Your task to perform on an android device: turn on data saver in the chrome app Image 0: 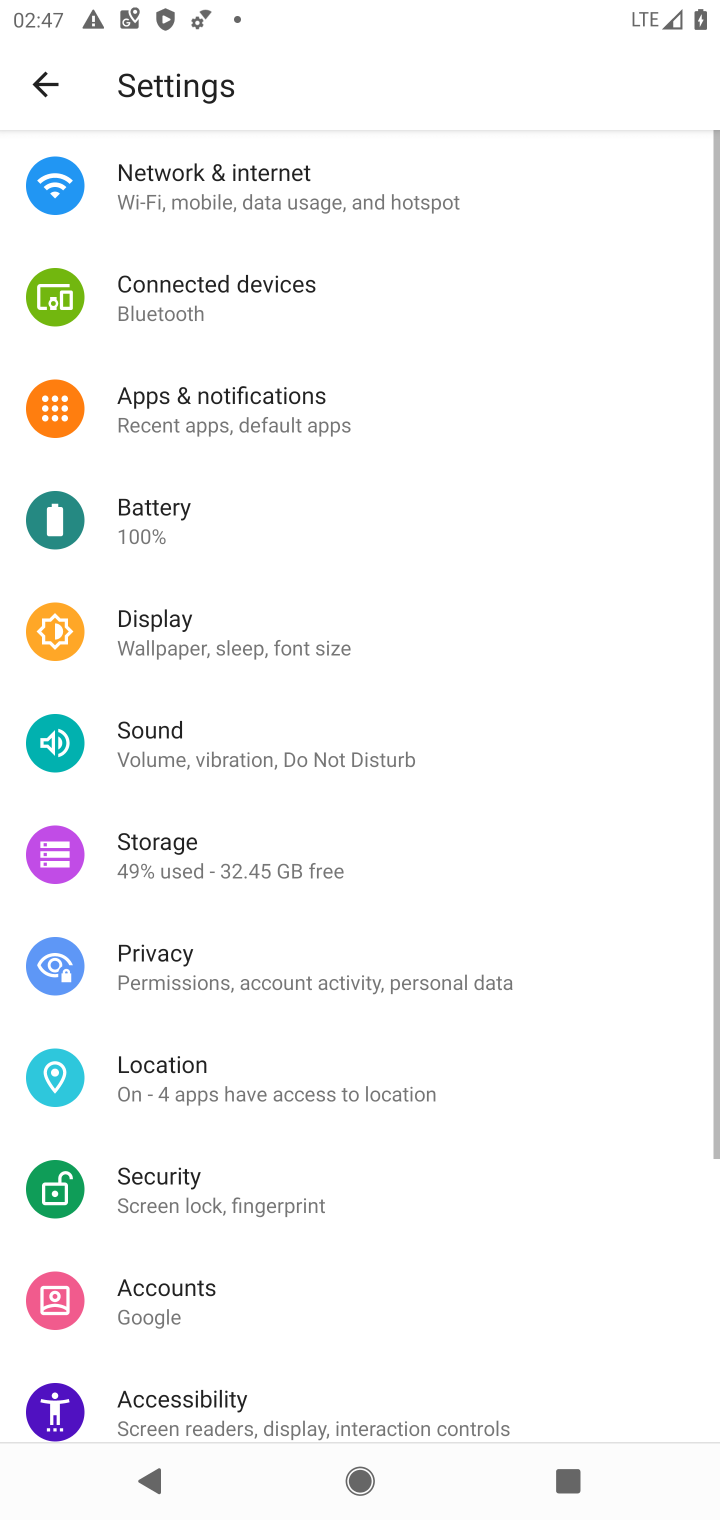
Step 0: press home button
Your task to perform on an android device: turn on data saver in the chrome app Image 1: 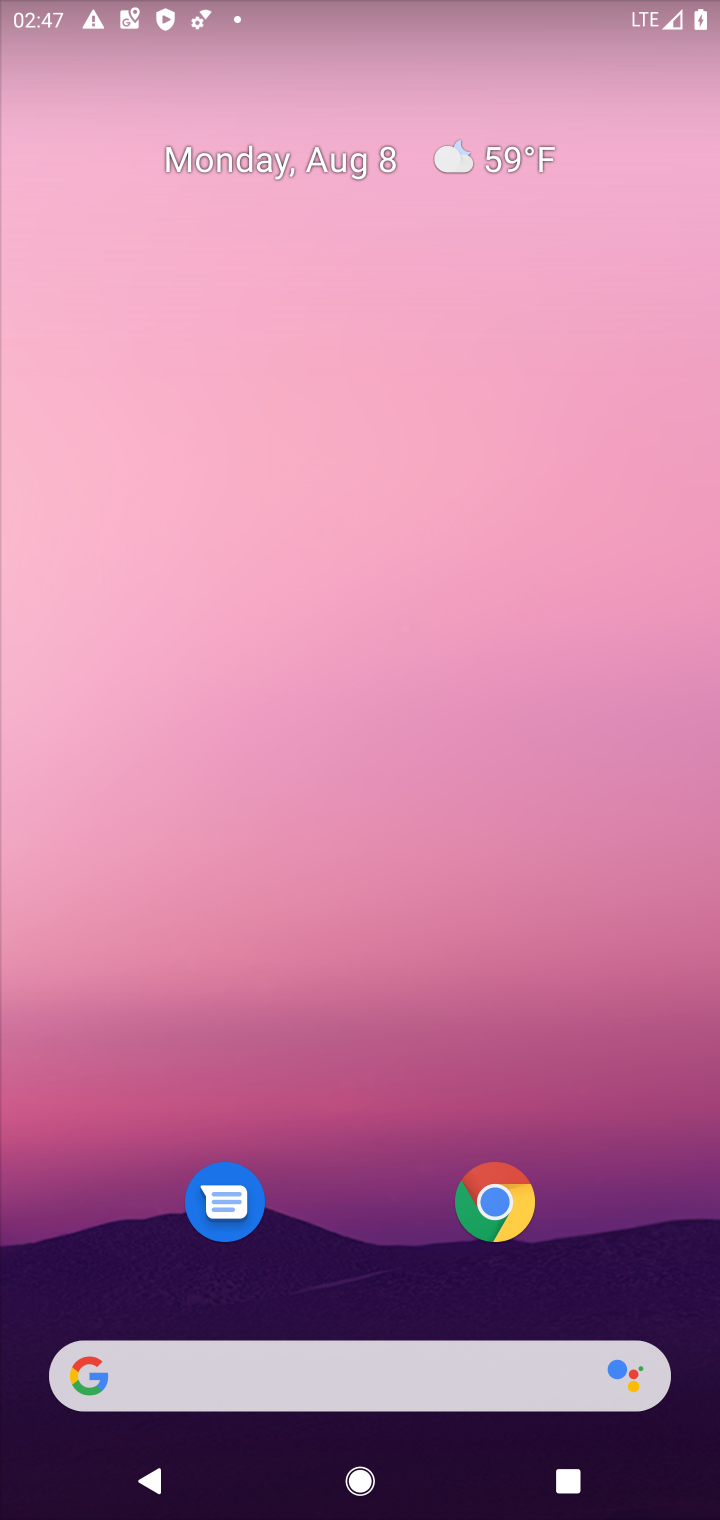
Step 1: click (493, 1213)
Your task to perform on an android device: turn on data saver in the chrome app Image 2: 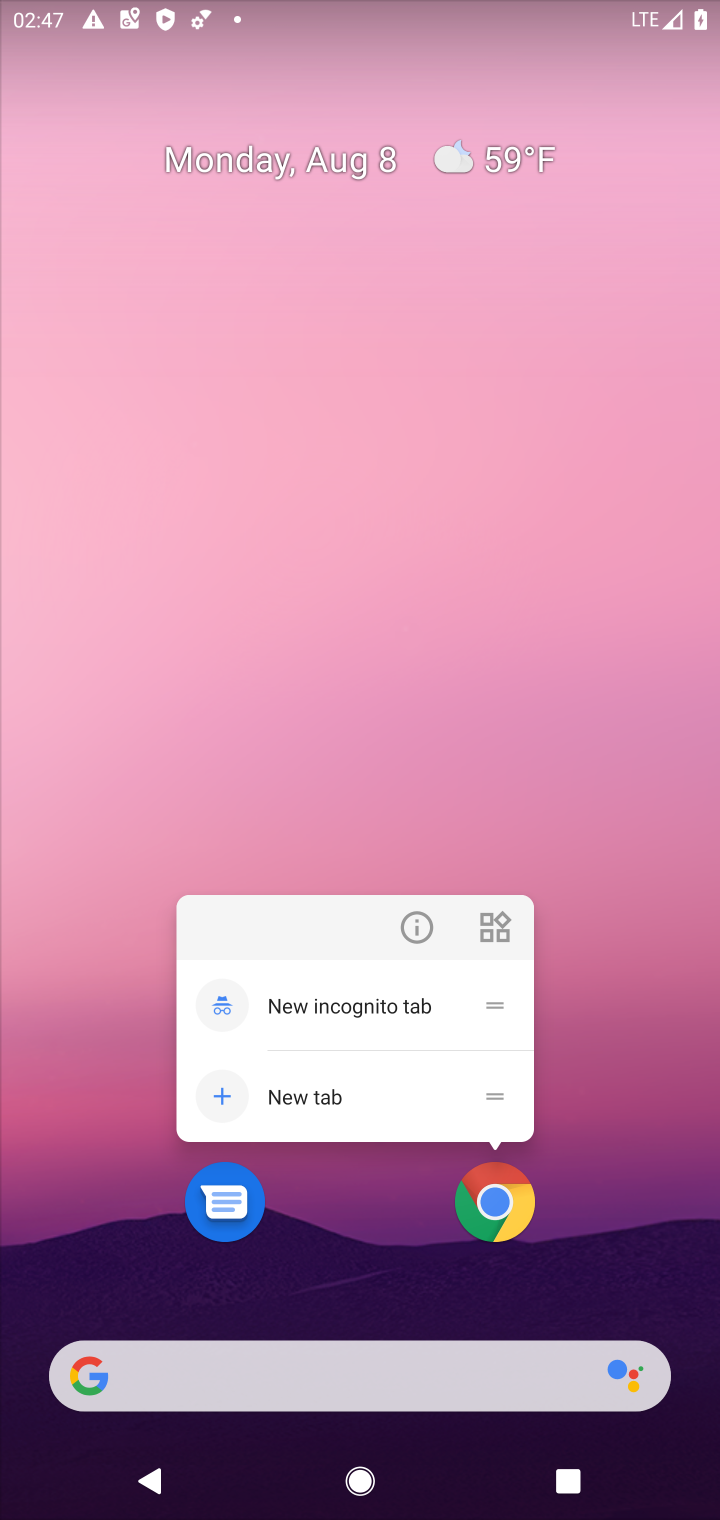
Step 2: click (493, 1194)
Your task to perform on an android device: turn on data saver in the chrome app Image 3: 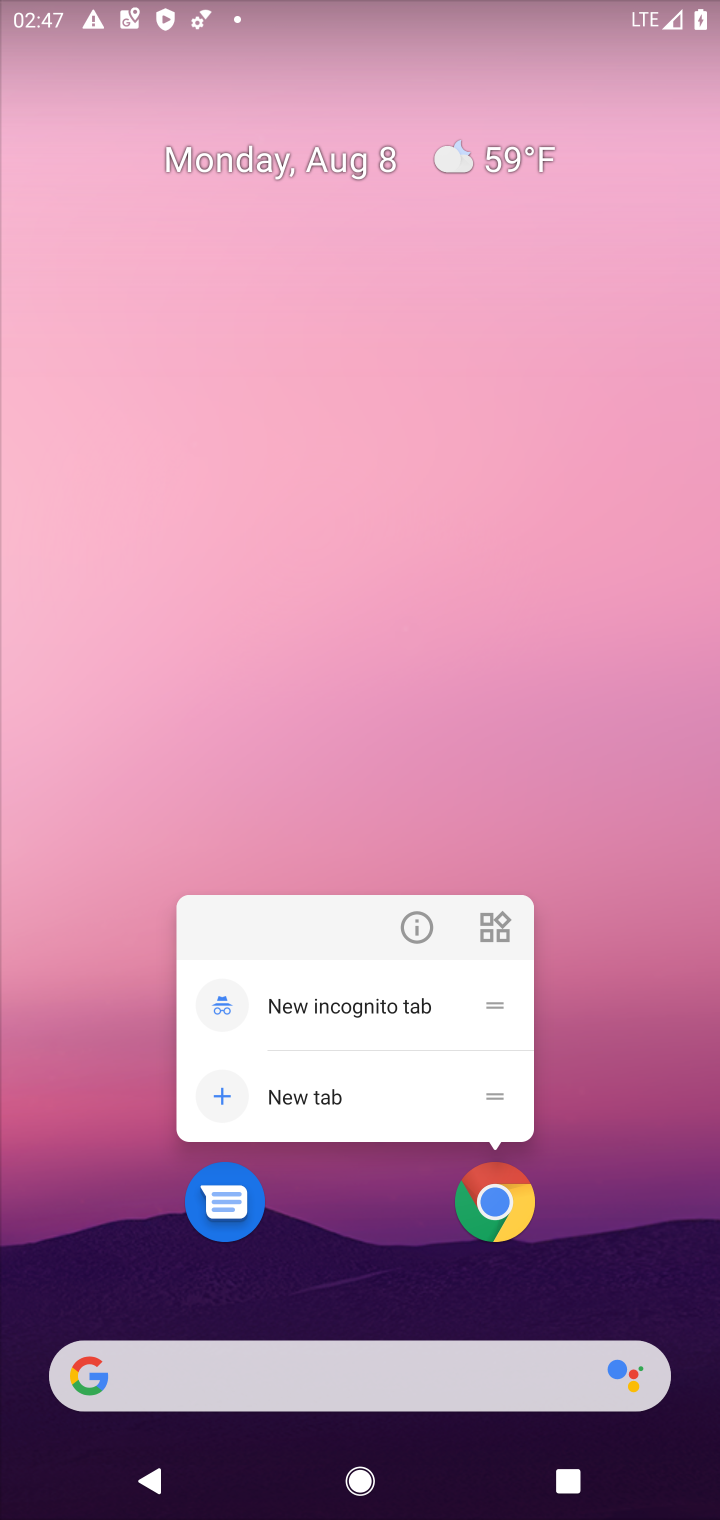
Step 3: click (494, 1210)
Your task to perform on an android device: turn on data saver in the chrome app Image 4: 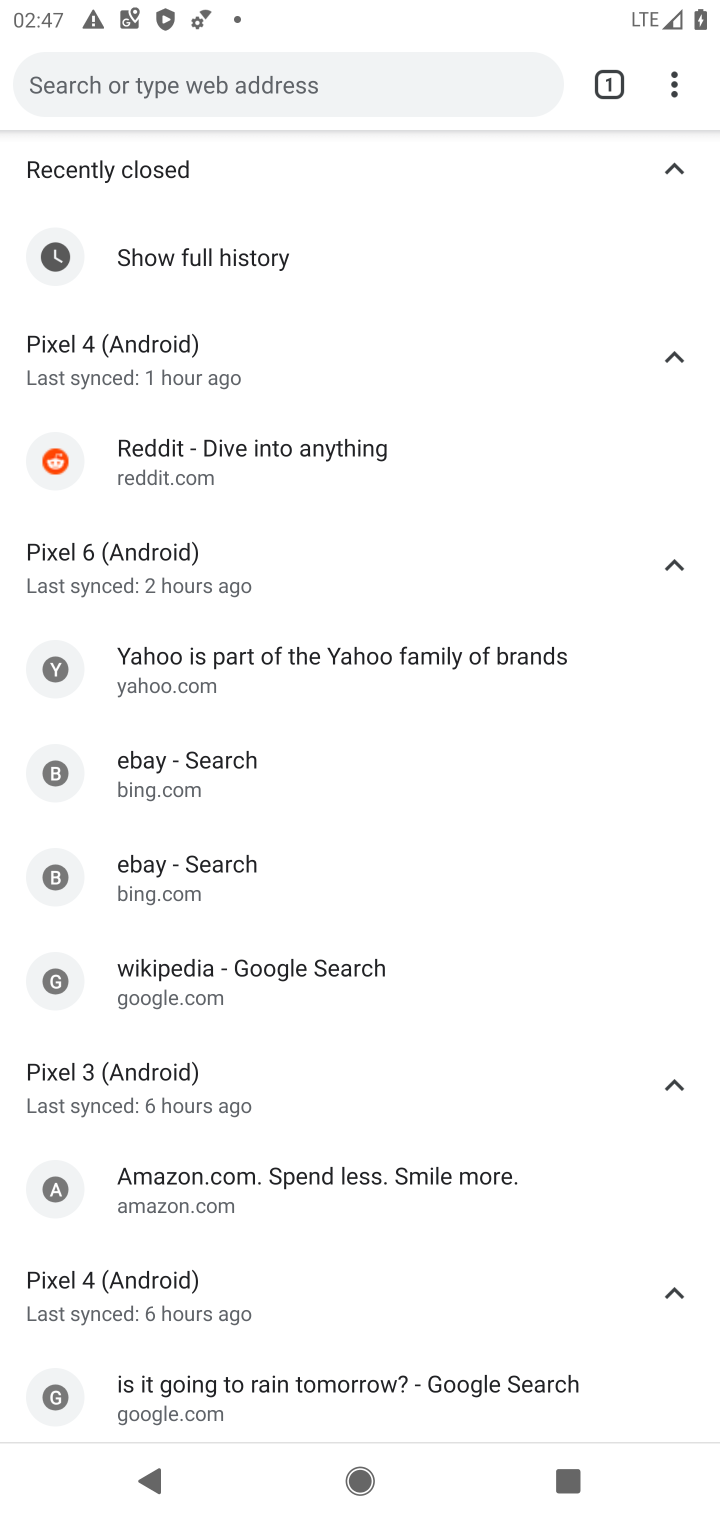
Step 4: click (673, 94)
Your task to perform on an android device: turn on data saver in the chrome app Image 5: 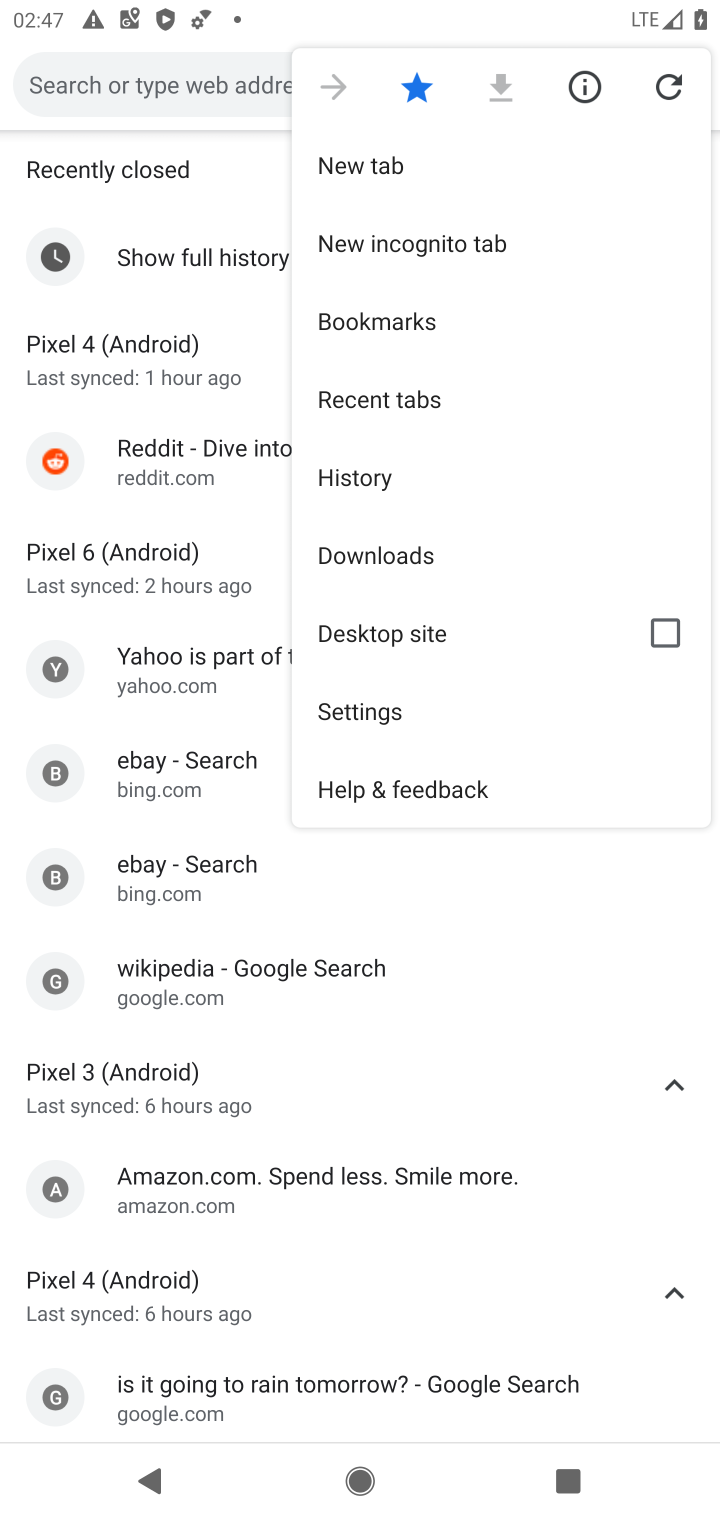
Step 5: click (380, 710)
Your task to perform on an android device: turn on data saver in the chrome app Image 6: 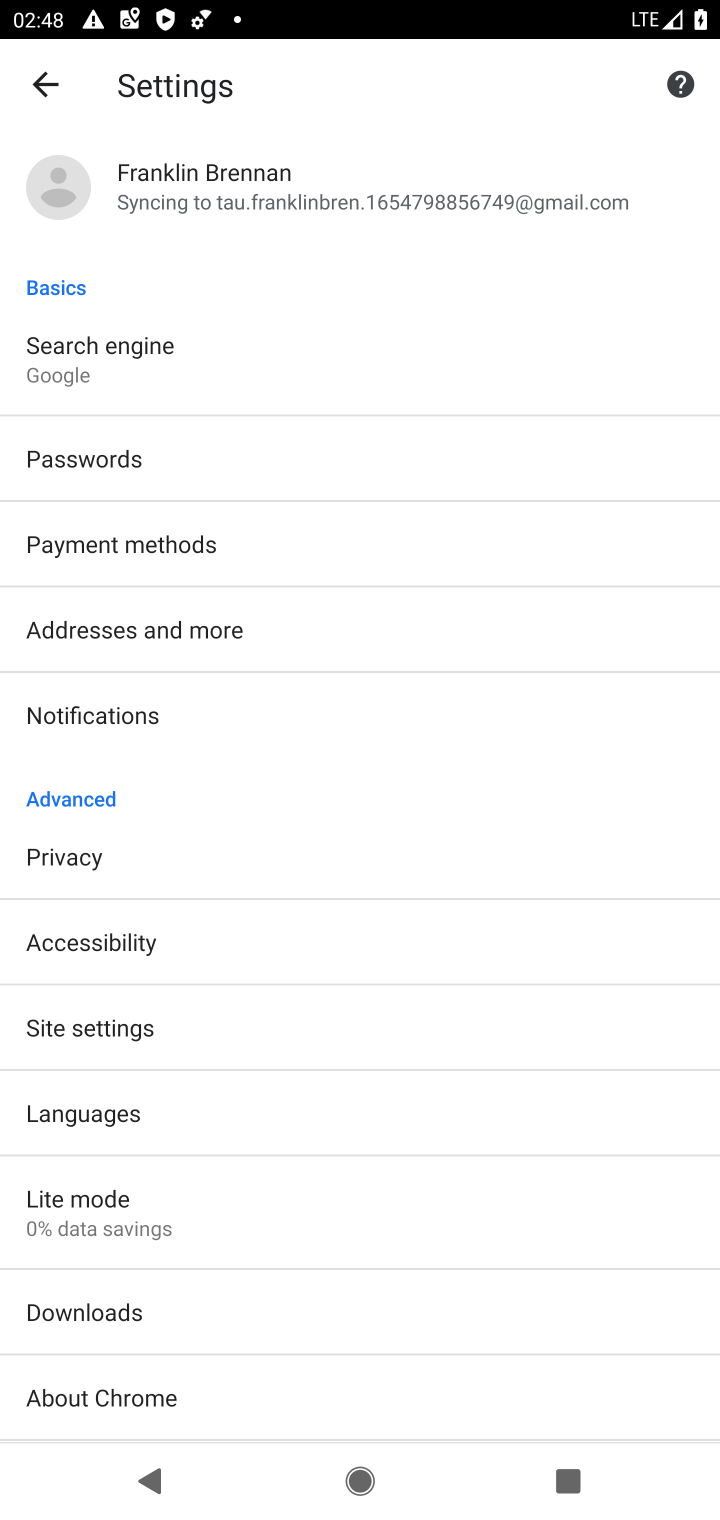
Step 6: click (75, 1215)
Your task to perform on an android device: turn on data saver in the chrome app Image 7: 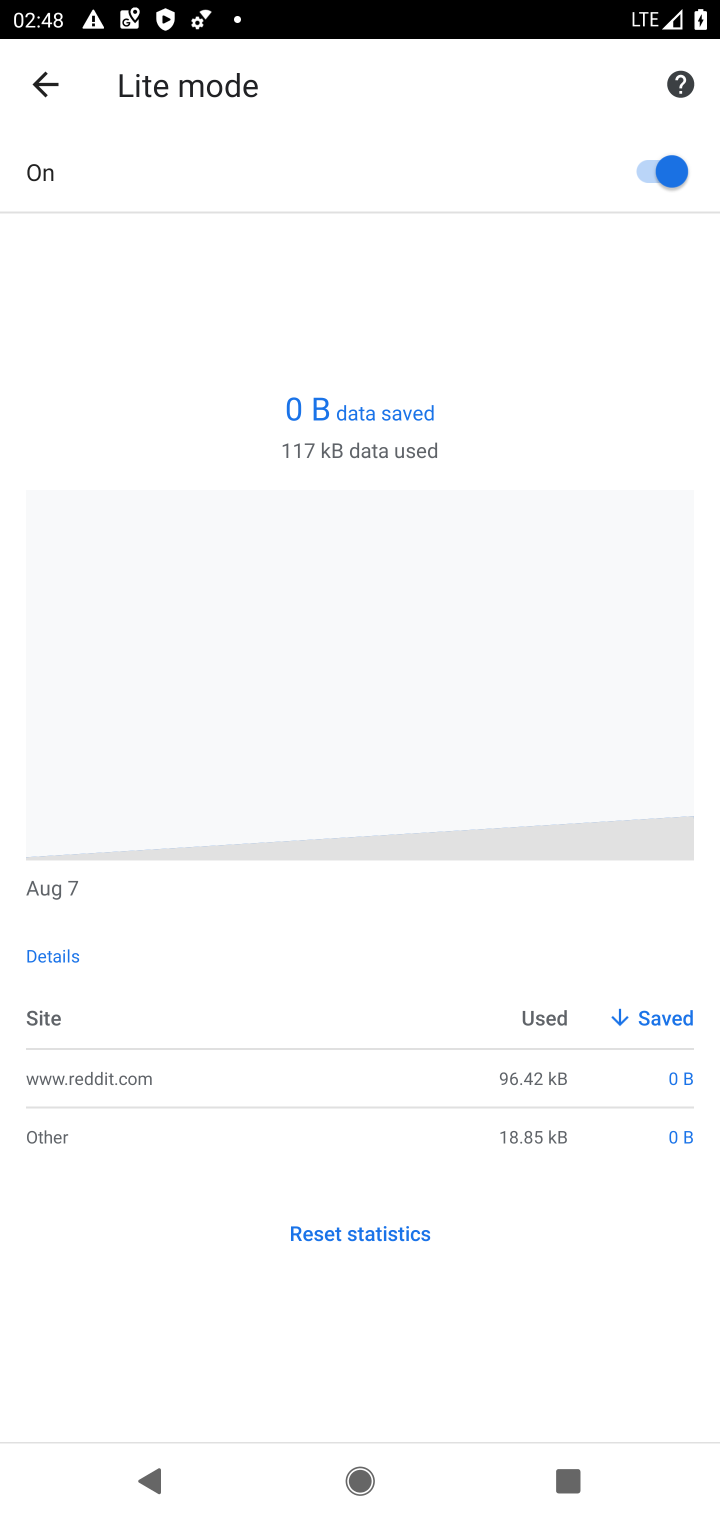
Step 7: task complete